Your task to perform on an android device: turn on priority inbox in the gmail app Image 0: 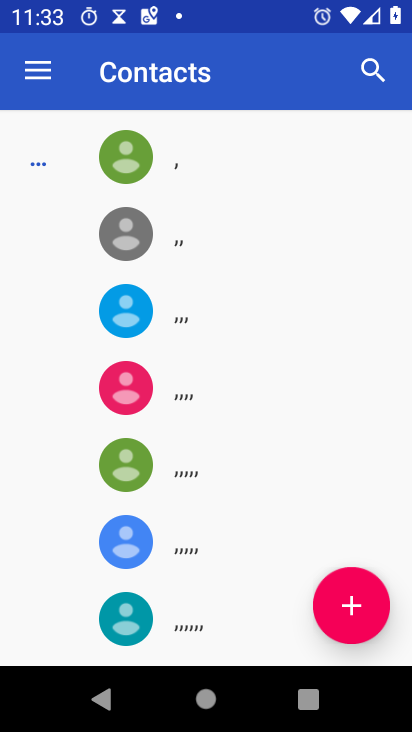
Step 0: press home button
Your task to perform on an android device: turn on priority inbox in the gmail app Image 1: 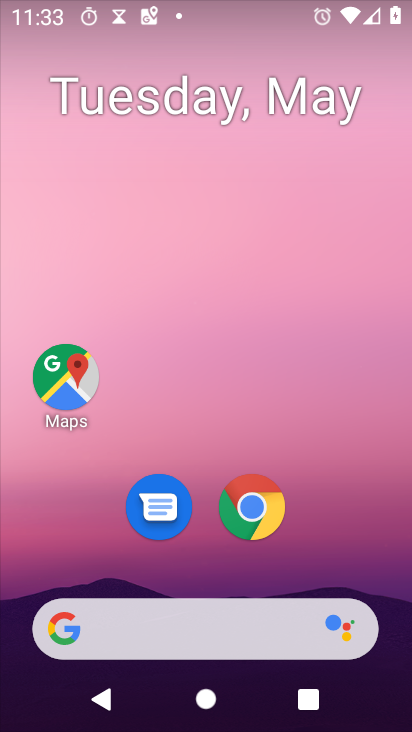
Step 1: drag from (98, 477) to (188, 152)
Your task to perform on an android device: turn on priority inbox in the gmail app Image 2: 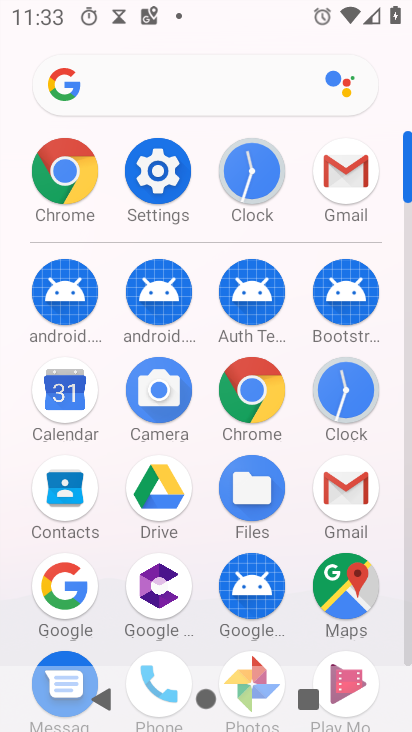
Step 2: click (345, 183)
Your task to perform on an android device: turn on priority inbox in the gmail app Image 3: 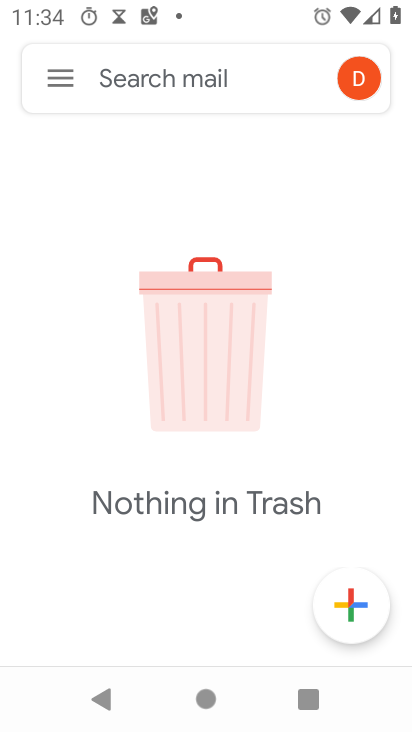
Step 3: click (53, 77)
Your task to perform on an android device: turn on priority inbox in the gmail app Image 4: 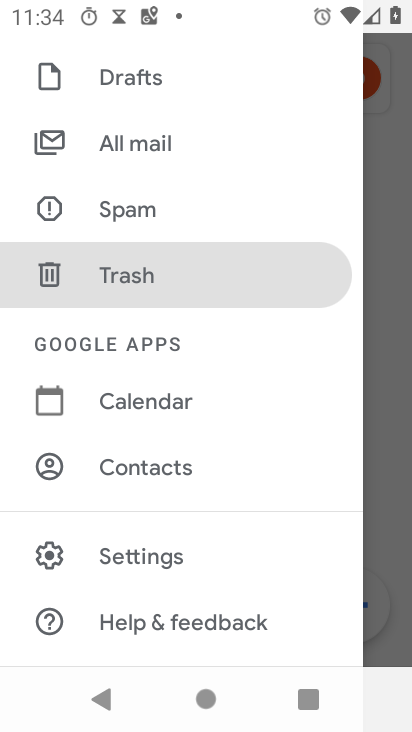
Step 4: click (191, 563)
Your task to perform on an android device: turn on priority inbox in the gmail app Image 5: 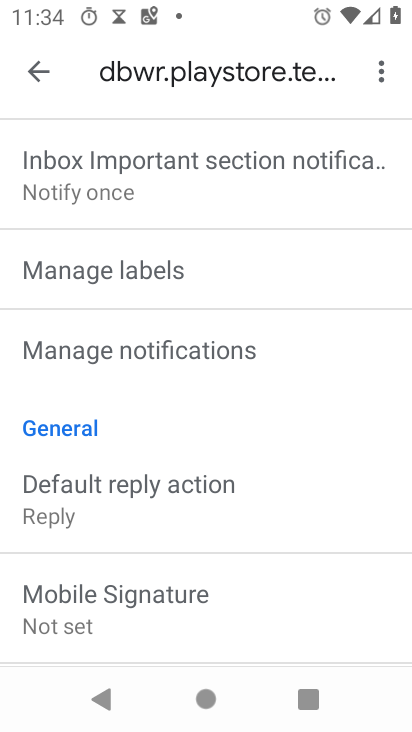
Step 5: task complete